Your task to perform on an android device: Open settings Image 0: 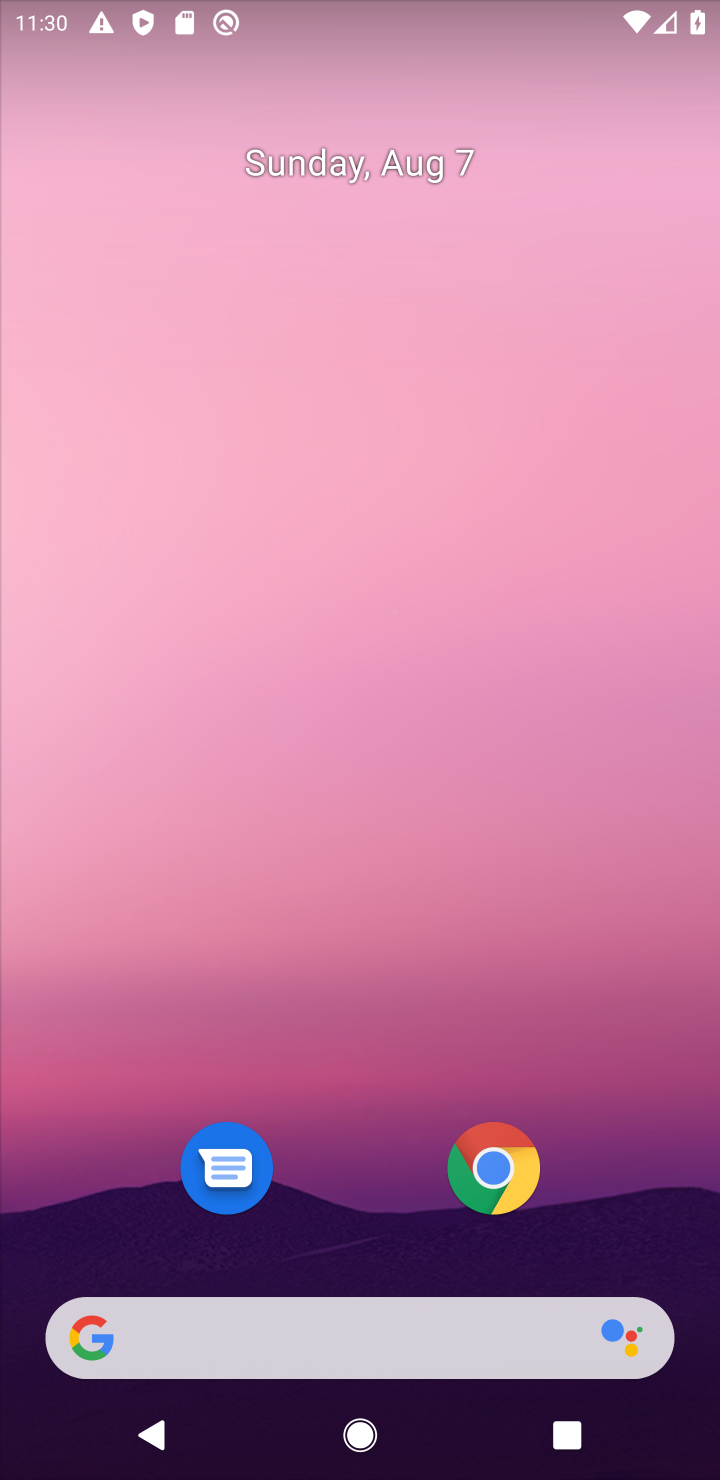
Step 0: drag from (115, 1440) to (403, 744)
Your task to perform on an android device: Open settings Image 1: 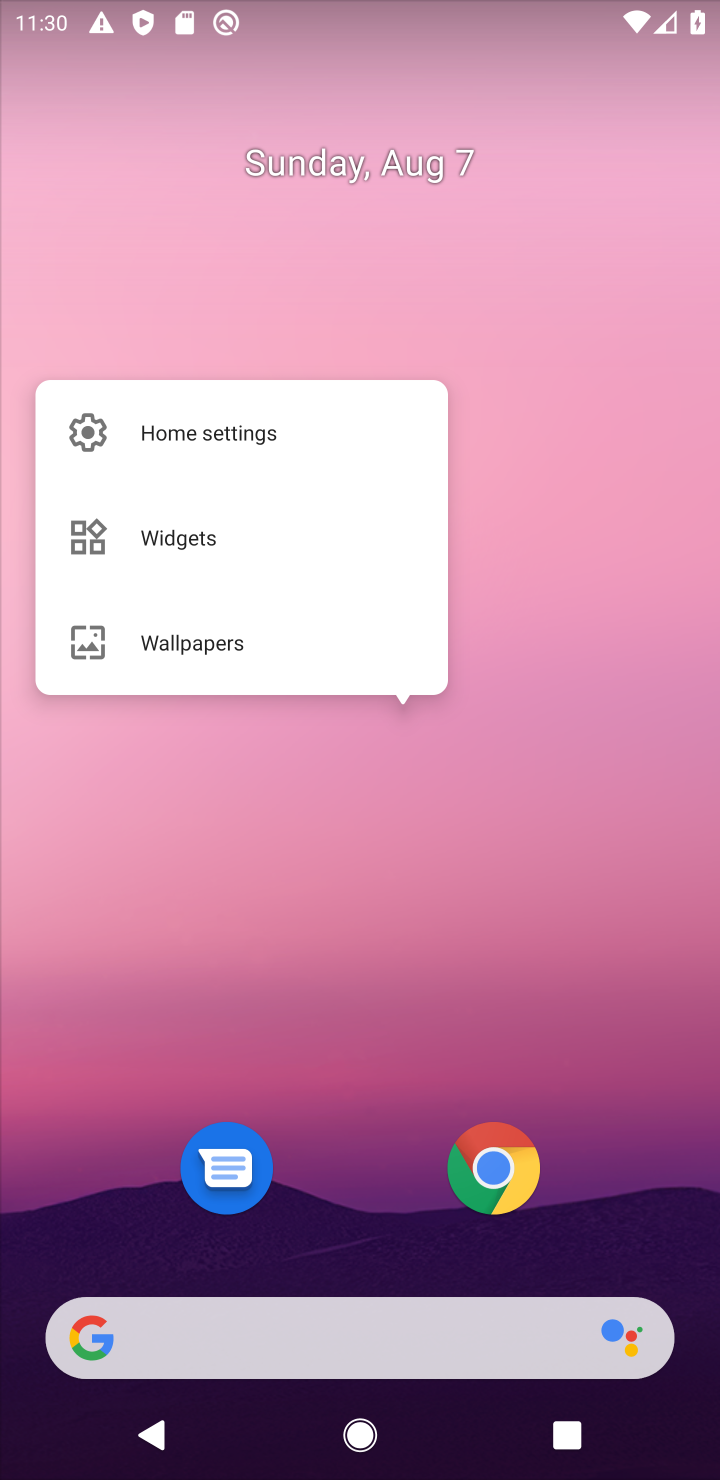
Step 1: task complete